Your task to perform on an android device: What's the weather going to be this weekend? Image 0: 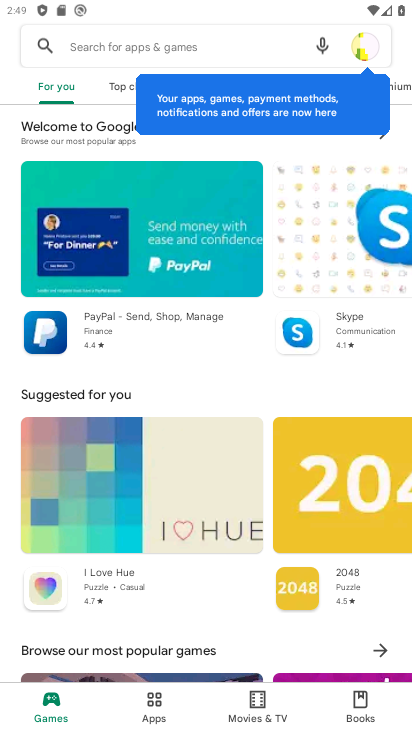
Step 0: press home button
Your task to perform on an android device: What's the weather going to be this weekend? Image 1: 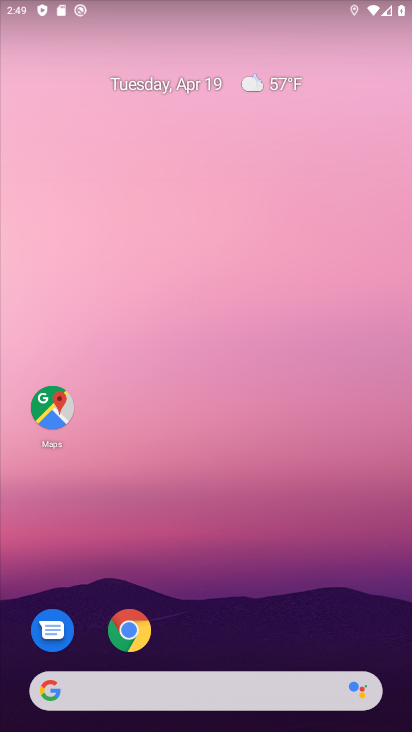
Step 1: drag from (210, 505) to (182, 222)
Your task to perform on an android device: What's the weather going to be this weekend? Image 2: 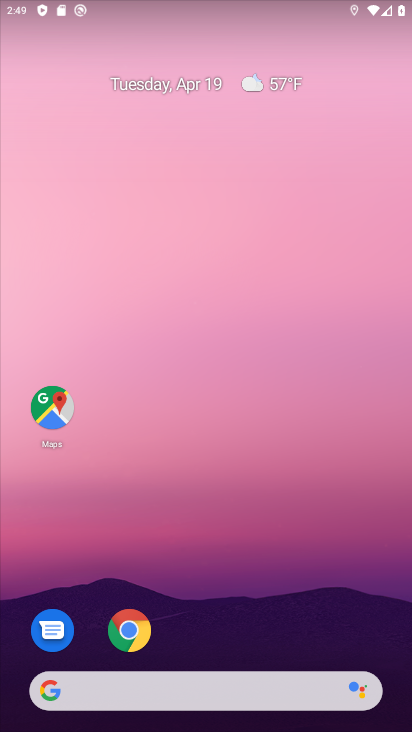
Step 2: drag from (235, 601) to (239, 164)
Your task to perform on an android device: What's the weather going to be this weekend? Image 3: 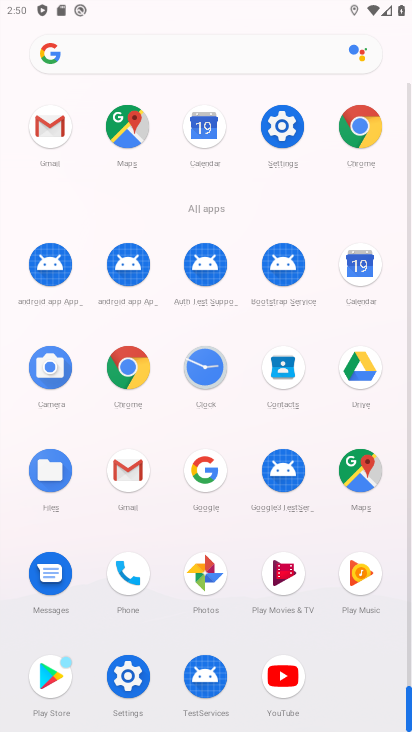
Step 3: click (193, 465)
Your task to perform on an android device: What's the weather going to be this weekend? Image 4: 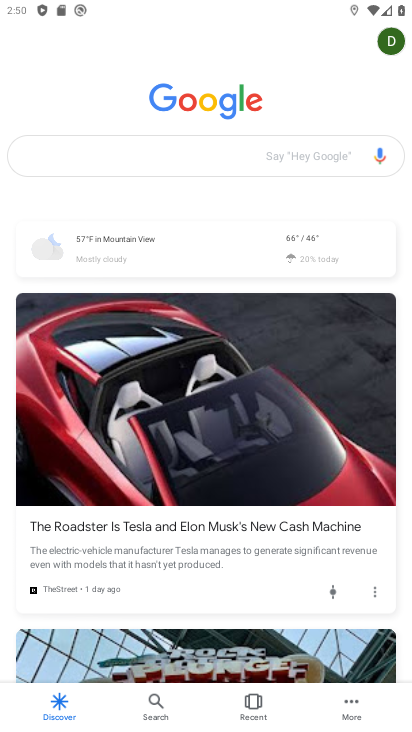
Step 4: click (125, 260)
Your task to perform on an android device: What's the weather going to be this weekend? Image 5: 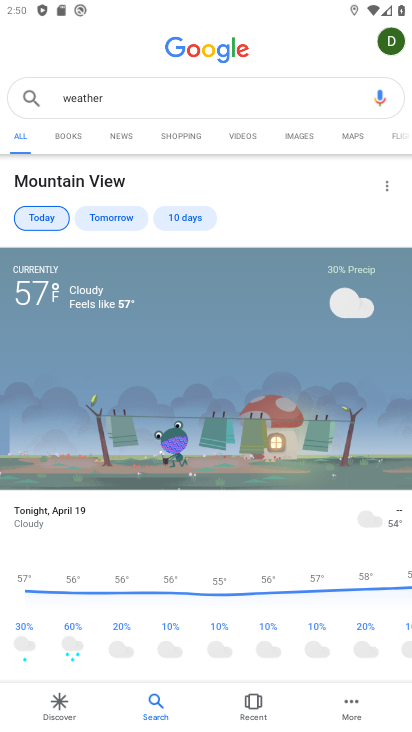
Step 5: click (182, 218)
Your task to perform on an android device: What's the weather going to be this weekend? Image 6: 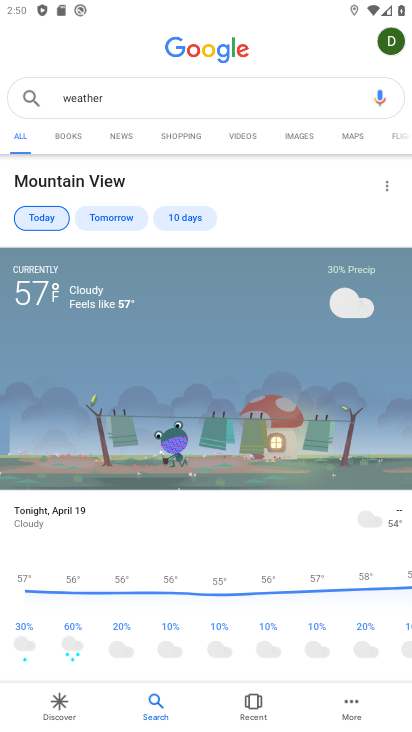
Step 6: click (182, 218)
Your task to perform on an android device: What's the weather going to be this weekend? Image 7: 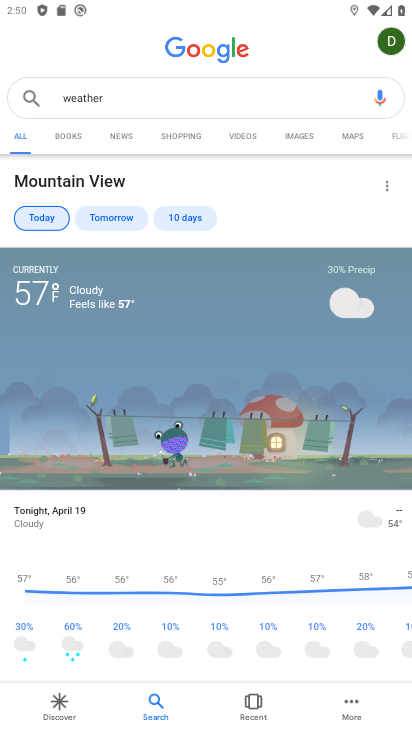
Step 7: click (182, 218)
Your task to perform on an android device: What's the weather going to be this weekend? Image 8: 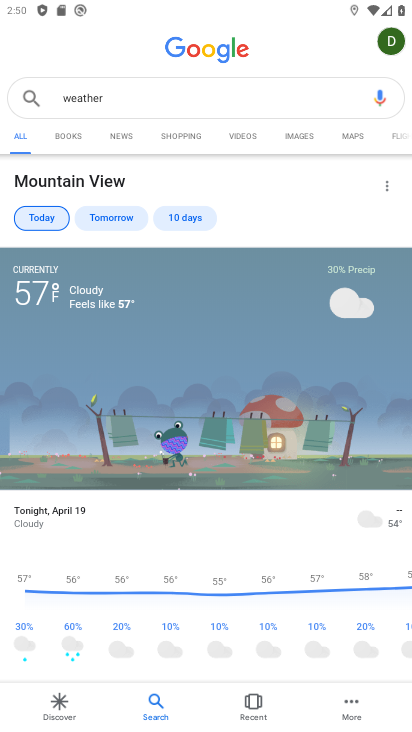
Step 8: click (182, 218)
Your task to perform on an android device: What's the weather going to be this weekend? Image 9: 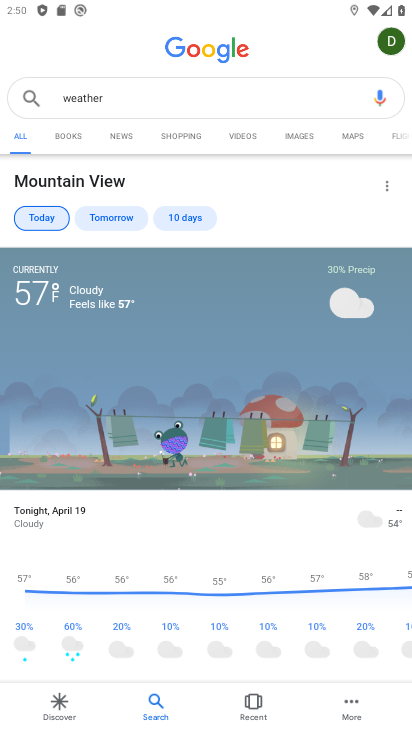
Step 9: click (182, 218)
Your task to perform on an android device: What's the weather going to be this weekend? Image 10: 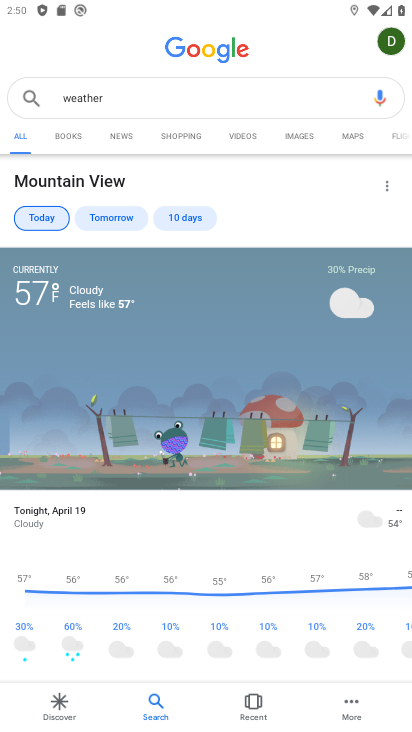
Step 10: click (169, 209)
Your task to perform on an android device: What's the weather going to be this weekend? Image 11: 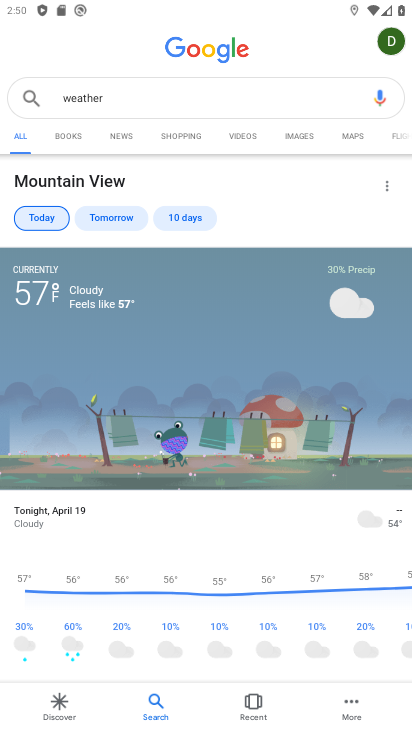
Step 11: click (177, 215)
Your task to perform on an android device: What's the weather going to be this weekend? Image 12: 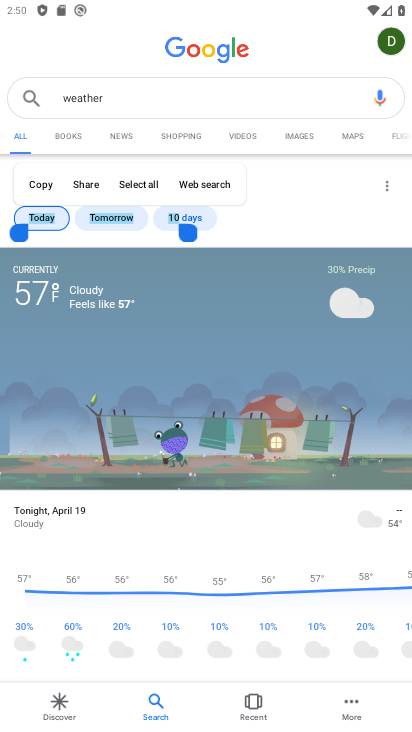
Step 12: click (184, 212)
Your task to perform on an android device: What's the weather going to be this weekend? Image 13: 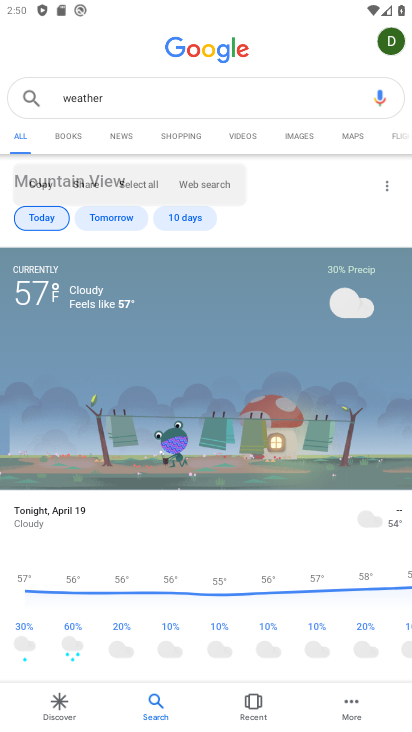
Step 13: click (196, 216)
Your task to perform on an android device: What's the weather going to be this weekend? Image 14: 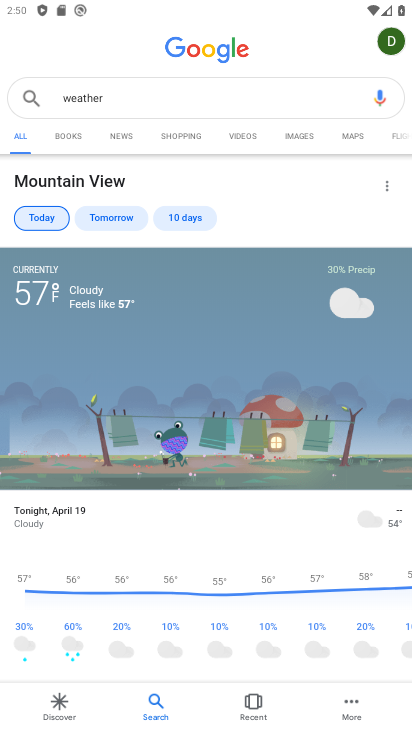
Step 14: click (195, 215)
Your task to perform on an android device: What's the weather going to be this weekend? Image 15: 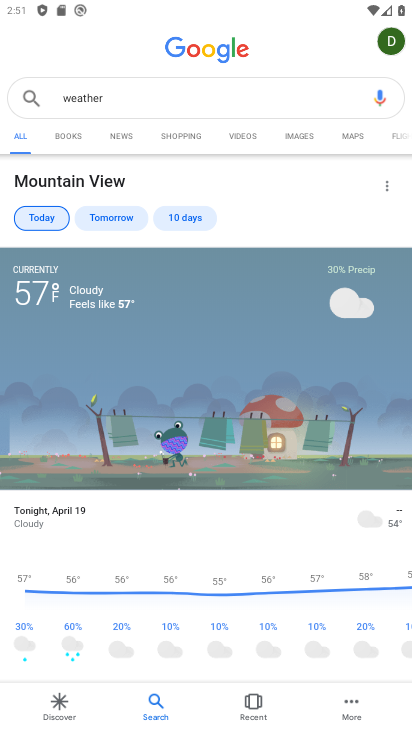
Step 15: click (195, 215)
Your task to perform on an android device: What's the weather going to be this weekend? Image 16: 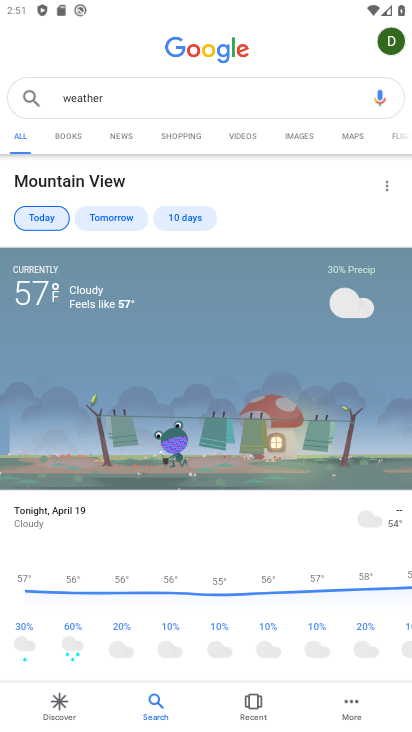
Step 16: task complete